Your task to perform on an android device: check android version Image 0: 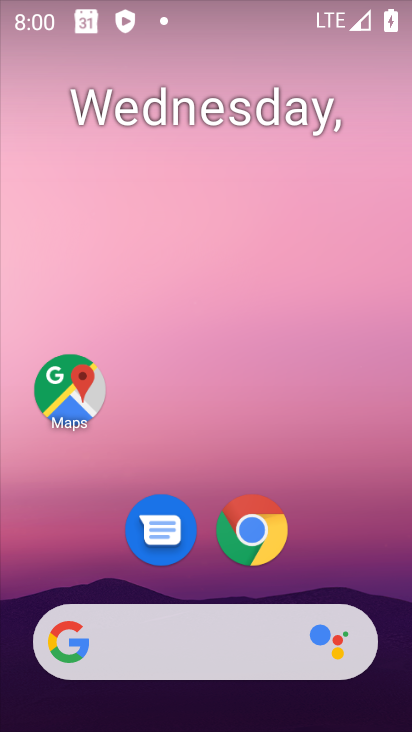
Step 0: drag from (317, 576) to (386, 106)
Your task to perform on an android device: check android version Image 1: 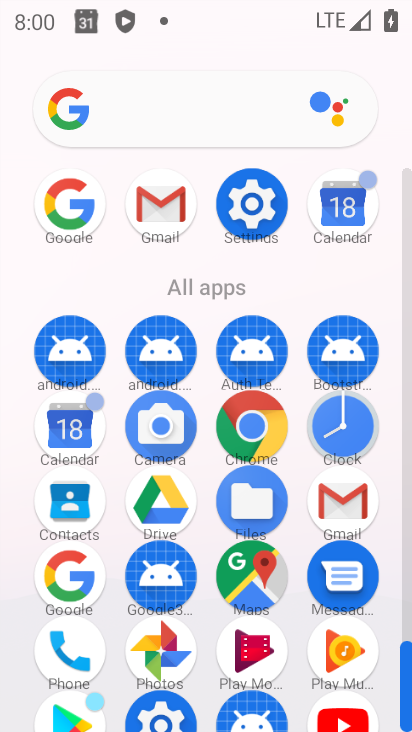
Step 1: drag from (254, 212) to (62, 173)
Your task to perform on an android device: check android version Image 2: 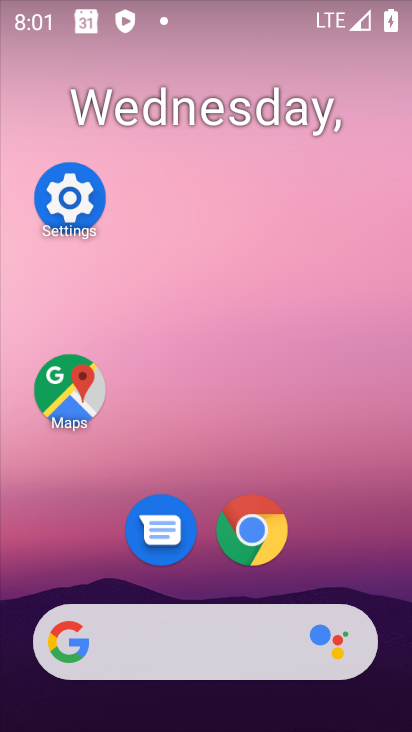
Step 2: click (79, 195)
Your task to perform on an android device: check android version Image 3: 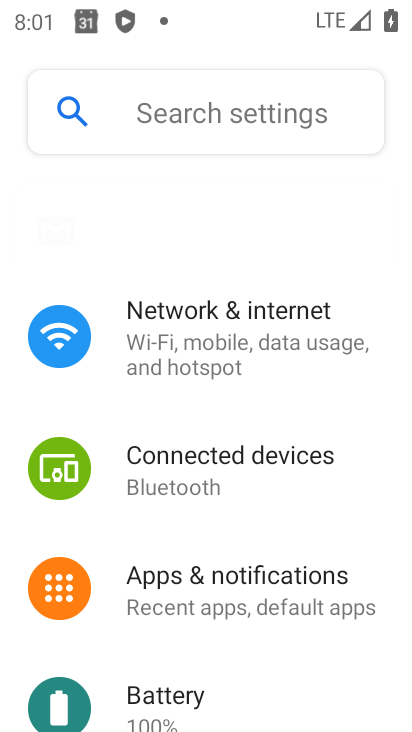
Step 3: drag from (266, 581) to (252, 144)
Your task to perform on an android device: check android version Image 4: 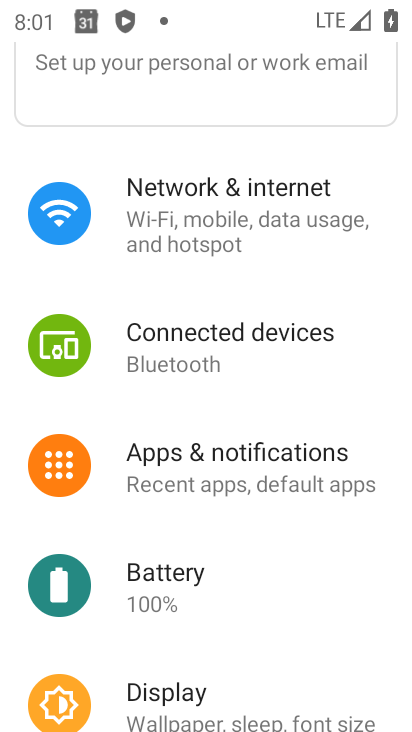
Step 4: drag from (245, 618) to (268, 143)
Your task to perform on an android device: check android version Image 5: 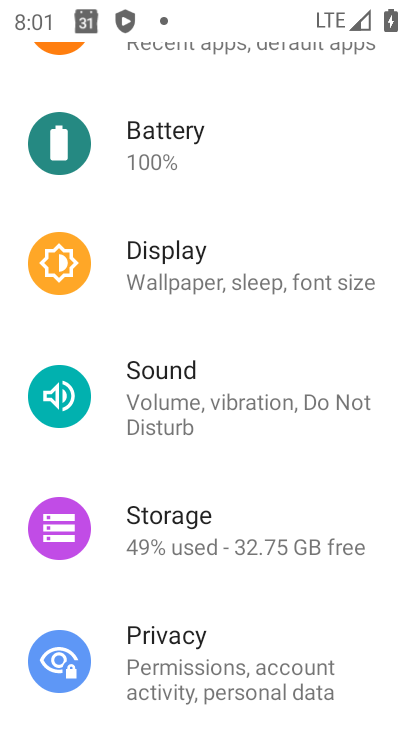
Step 5: drag from (249, 602) to (272, 208)
Your task to perform on an android device: check android version Image 6: 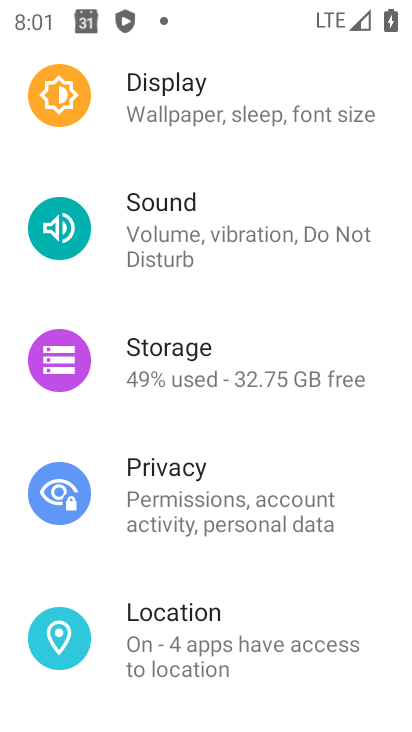
Step 6: drag from (275, 625) to (288, 215)
Your task to perform on an android device: check android version Image 7: 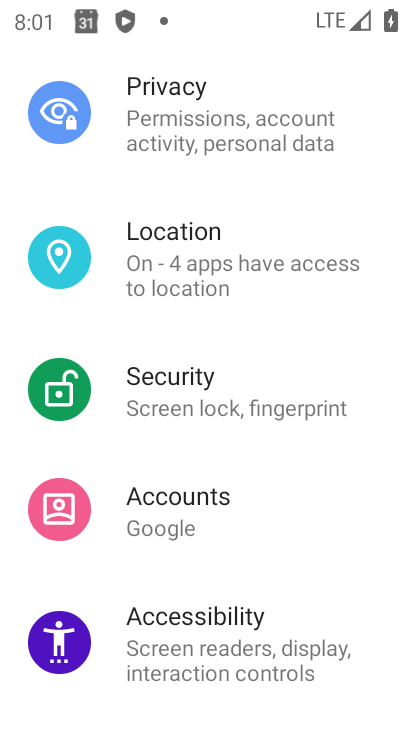
Step 7: drag from (252, 569) to (274, 207)
Your task to perform on an android device: check android version Image 8: 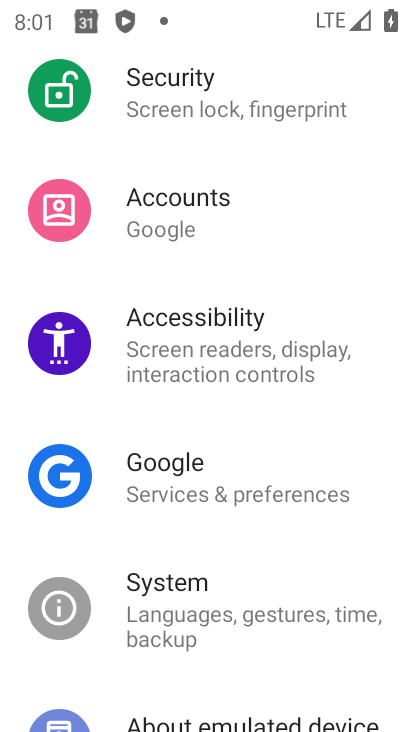
Step 8: drag from (265, 572) to (271, 204)
Your task to perform on an android device: check android version Image 9: 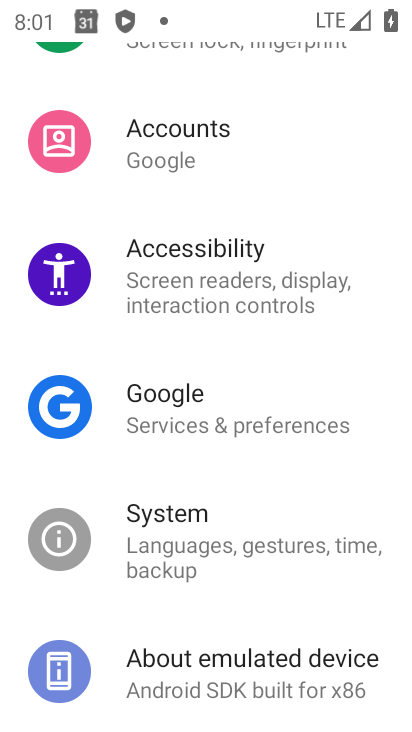
Step 9: click (245, 650)
Your task to perform on an android device: check android version Image 10: 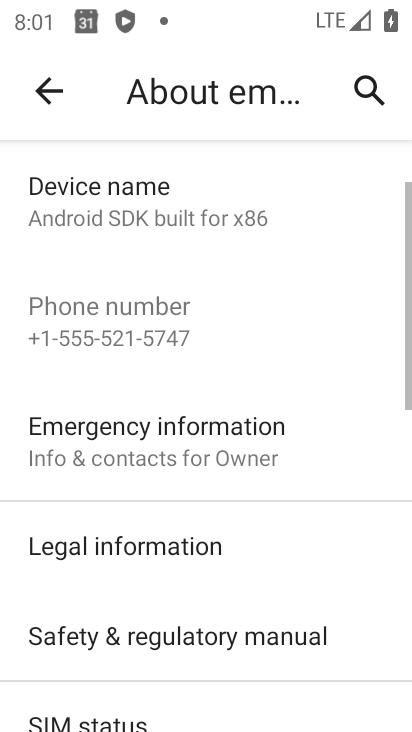
Step 10: drag from (250, 579) to (276, 205)
Your task to perform on an android device: check android version Image 11: 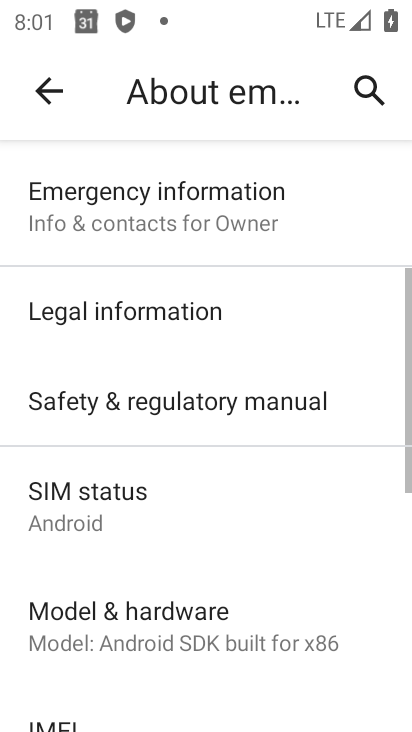
Step 11: drag from (202, 573) to (226, 231)
Your task to perform on an android device: check android version Image 12: 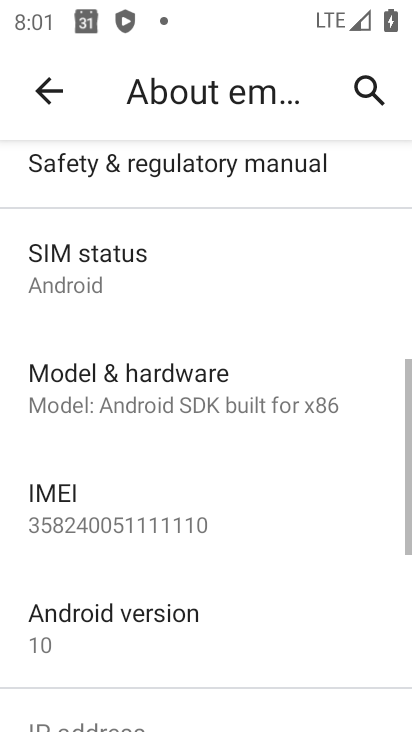
Step 12: click (177, 623)
Your task to perform on an android device: check android version Image 13: 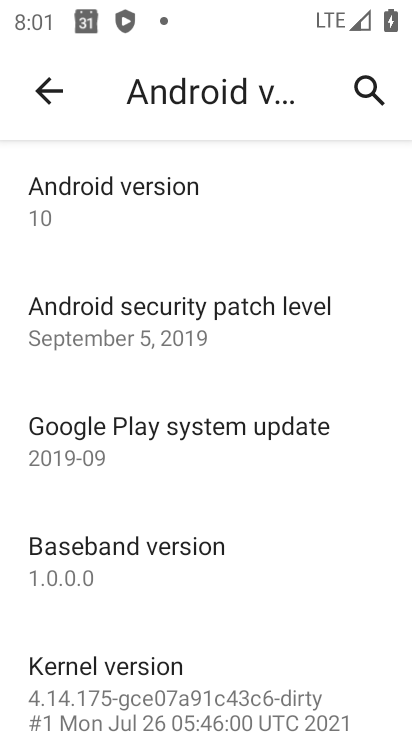
Step 13: task complete